Your task to perform on an android device: refresh tabs in the chrome app Image 0: 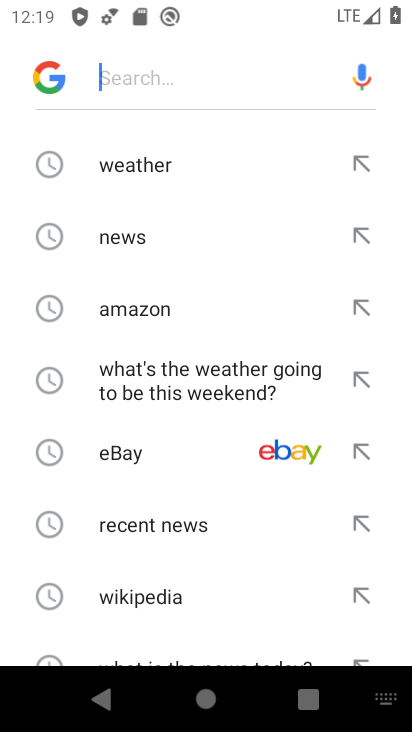
Step 0: press home button
Your task to perform on an android device: refresh tabs in the chrome app Image 1: 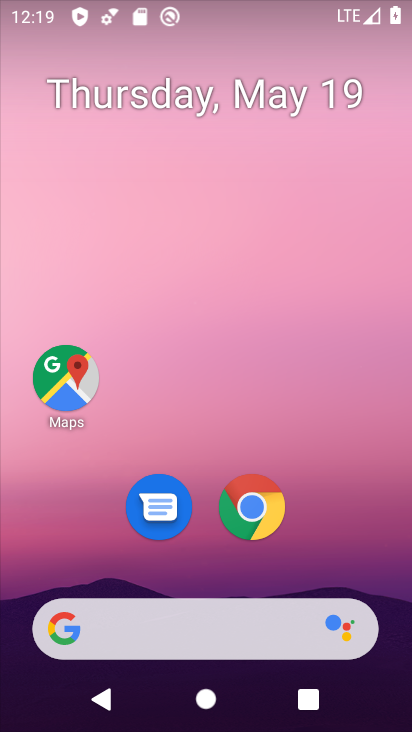
Step 1: click (281, 521)
Your task to perform on an android device: refresh tabs in the chrome app Image 2: 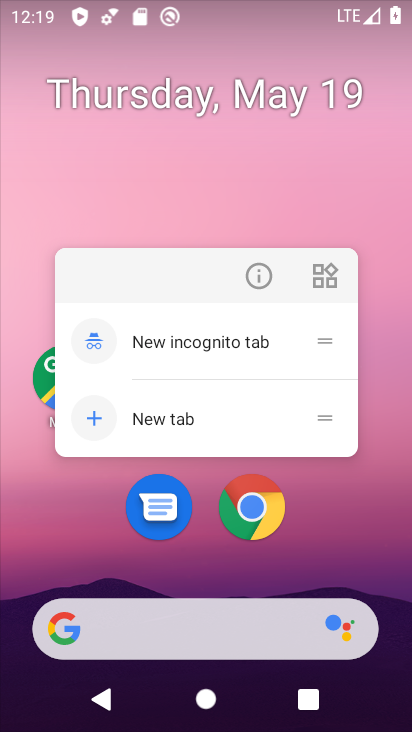
Step 2: click (272, 486)
Your task to perform on an android device: refresh tabs in the chrome app Image 3: 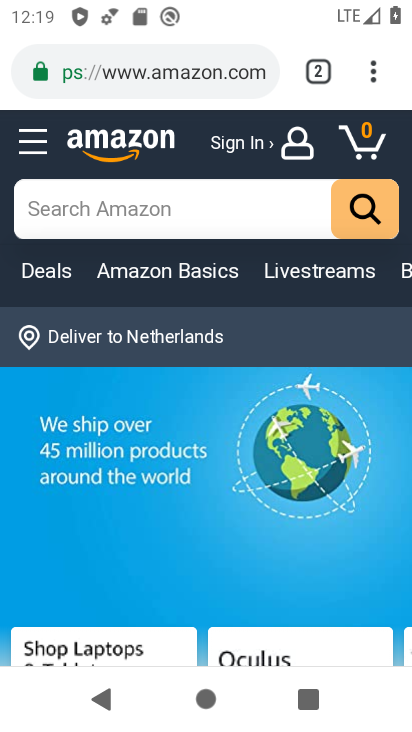
Step 3: click (387, 75)
Your task to perform on an android device: refresh tabs in the chrome app Image 4: 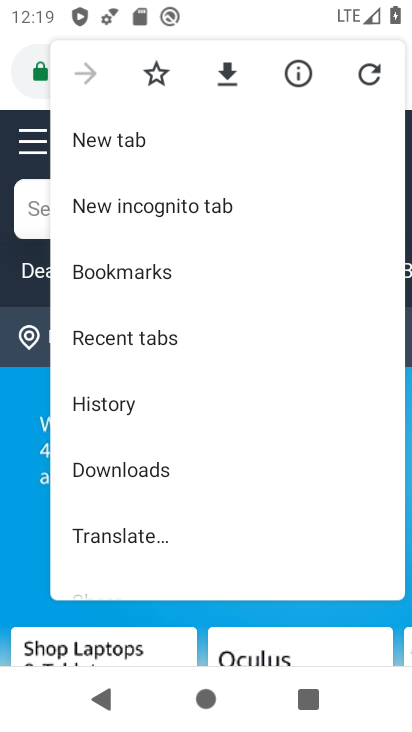
Step 4: drag from (133, 488) to (145, 350)
Your task to perform on an android device: refresh tabs in the chrome app Image 5: 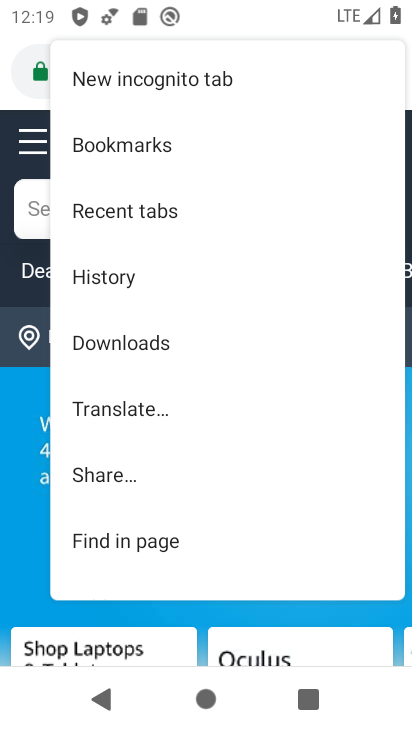
Step 5: drag from (231, 81) to (189, 330)
Your task to perform on an android device: refresh tabs in the chrome app Image 6: 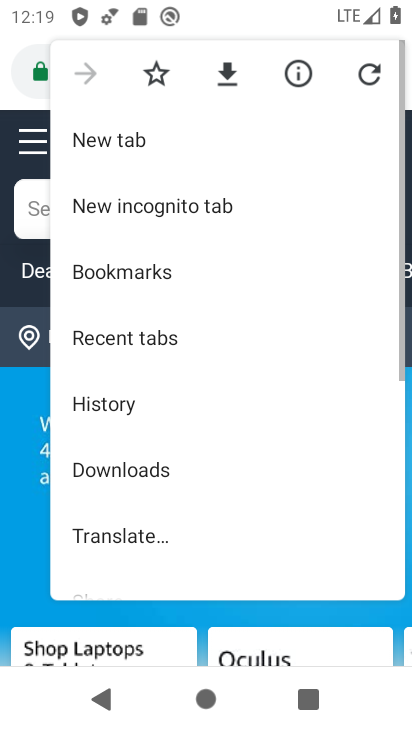
Step 6: click (373, 63)
Your task to perform on an android device: refresh tabs in the chrome app Image 7: 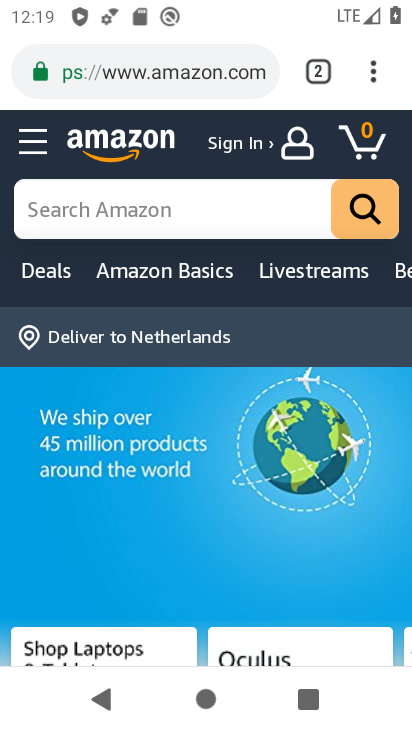
Step 7: task complete